Your task to perform on an android device: Open Wikipedia Image 0: 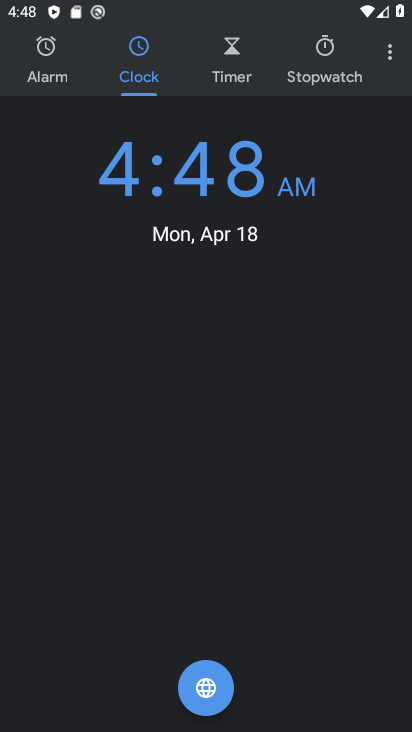
Step 0: press home button
Your task to perform on an android device: Open Wikipedia Image 1: 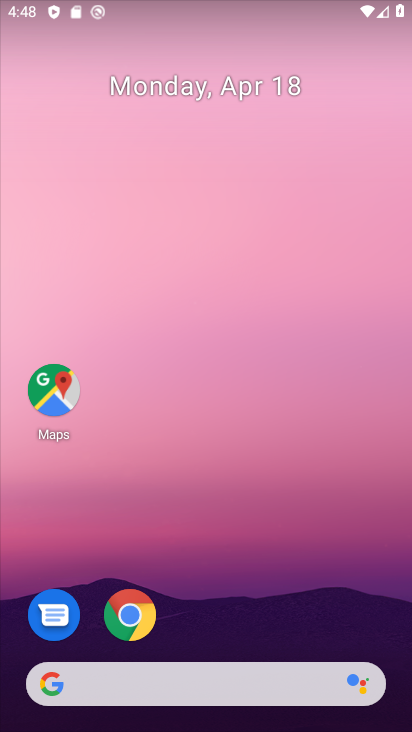
Step 1: drag from (191, 620) to (231, 109)
Your task to perform on an android device: Open Wikipedia Image 2: 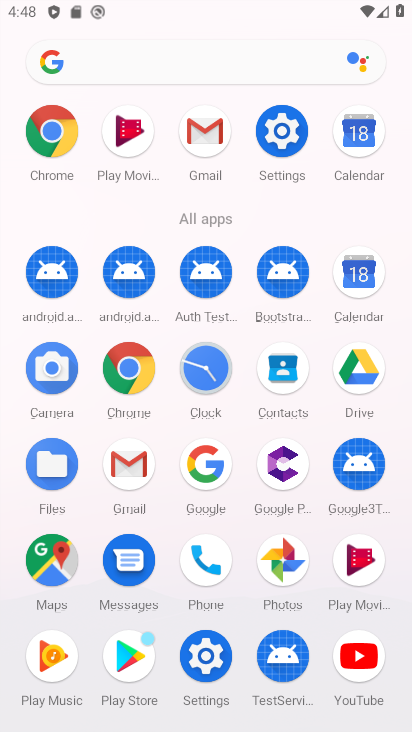
Step 2: click (131, 372)
Your task to perform on an android device: Open Wikipedia Image 3: 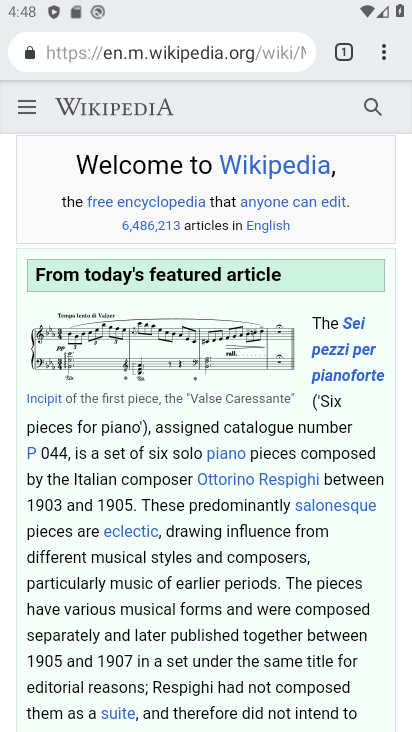
Step 3: task complete